Your task to perform on an android device: install app "Messages" Image 0: 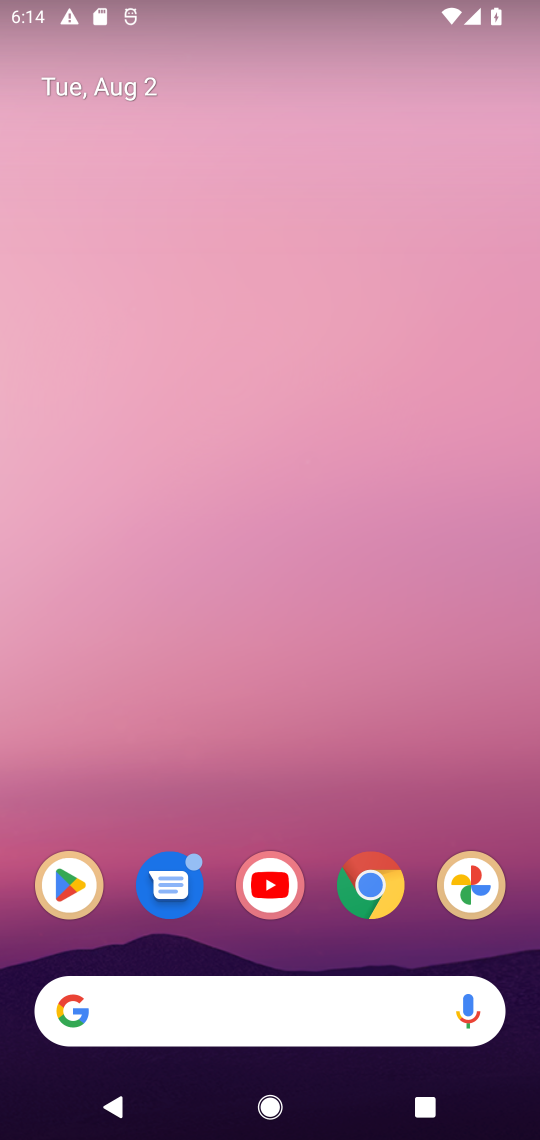
Step 0: press home button
Your task to perform on an android device: install app "Messages" Image 1: 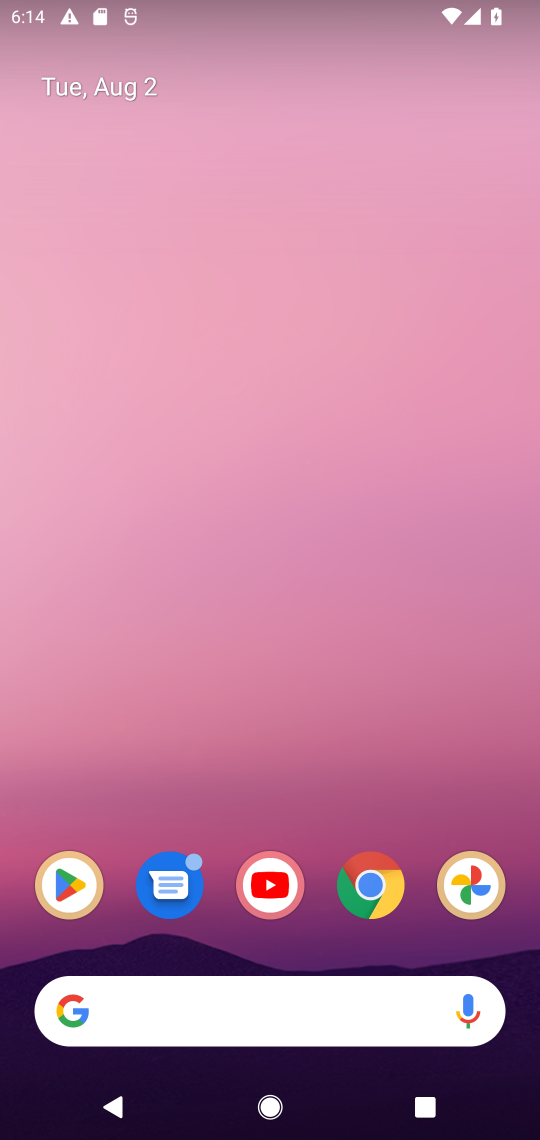
Step 1: drag from (436, 791) to (440, 178)
Your task to perform on an android device: install app "Messages" Image 2: 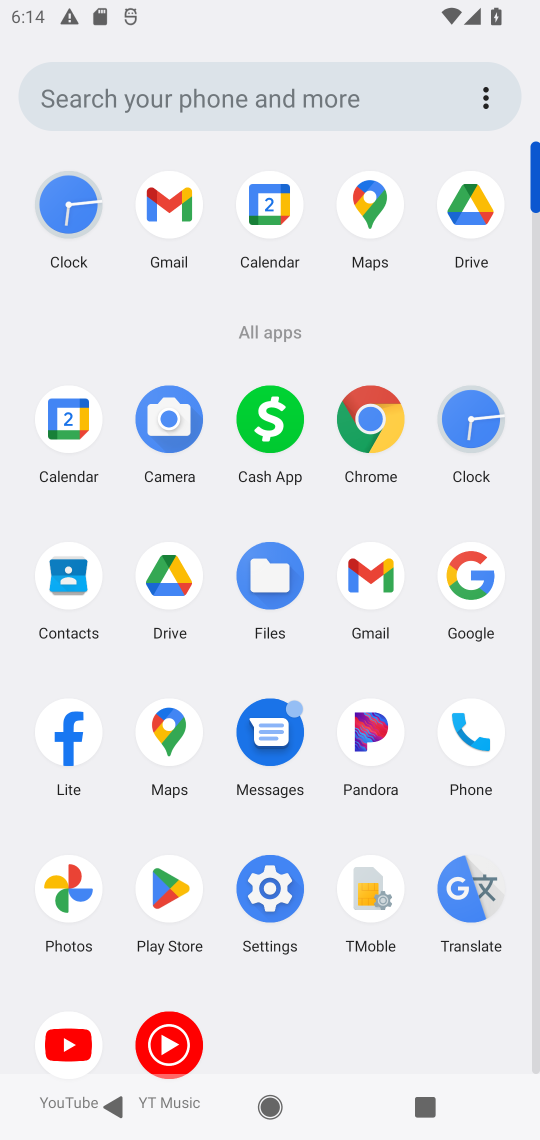
Step 2: click (170, 893)
Your task to perform on an android device: install app "Messages" Image 3: 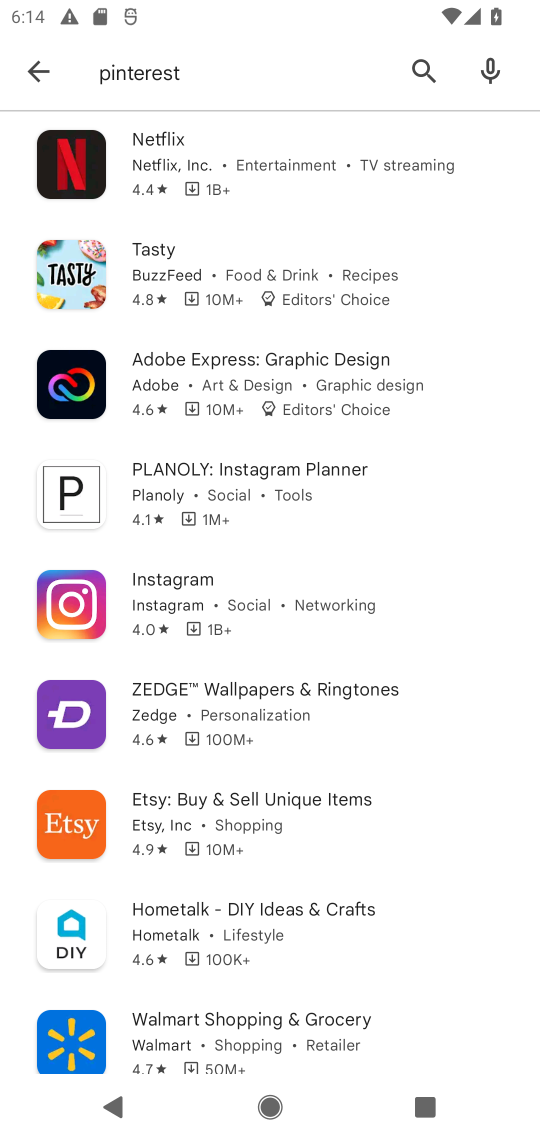
Step 3: click (423, 65)
Your task to perform on an android device: install app "Messages" Image 4: 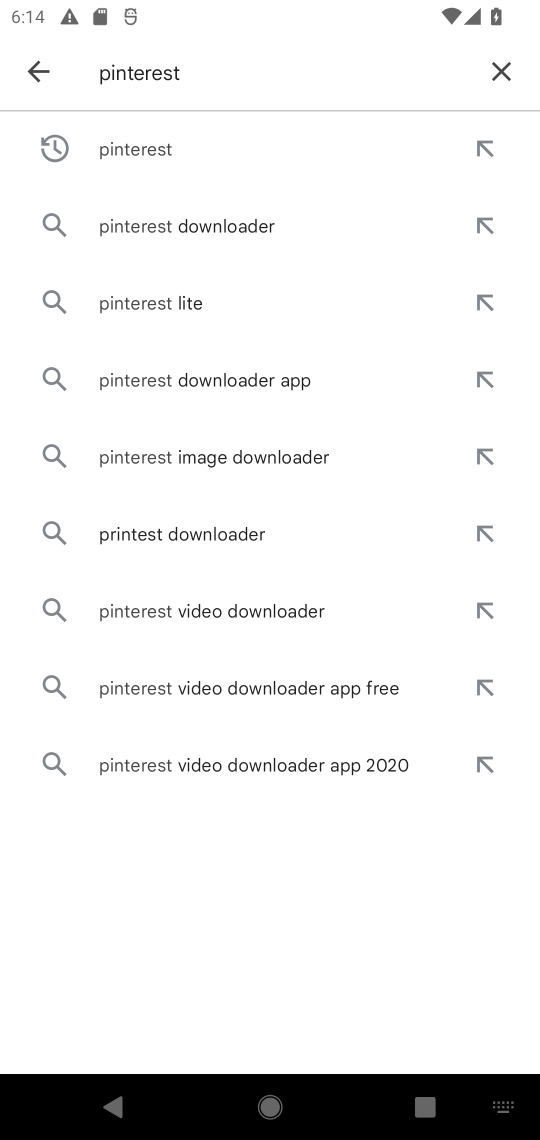
Step 4: click (490, 65)
Your task to perform on an android device: install app "Messages" Image 5: 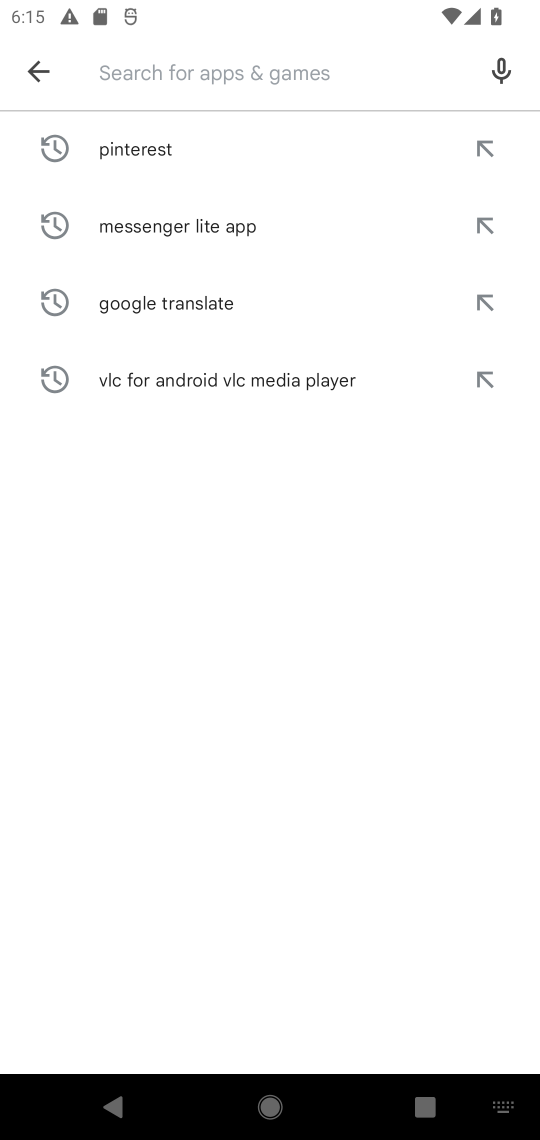
Step 5: type "messages"
Your task to perform on an android device: install app "Messages" Image 6: 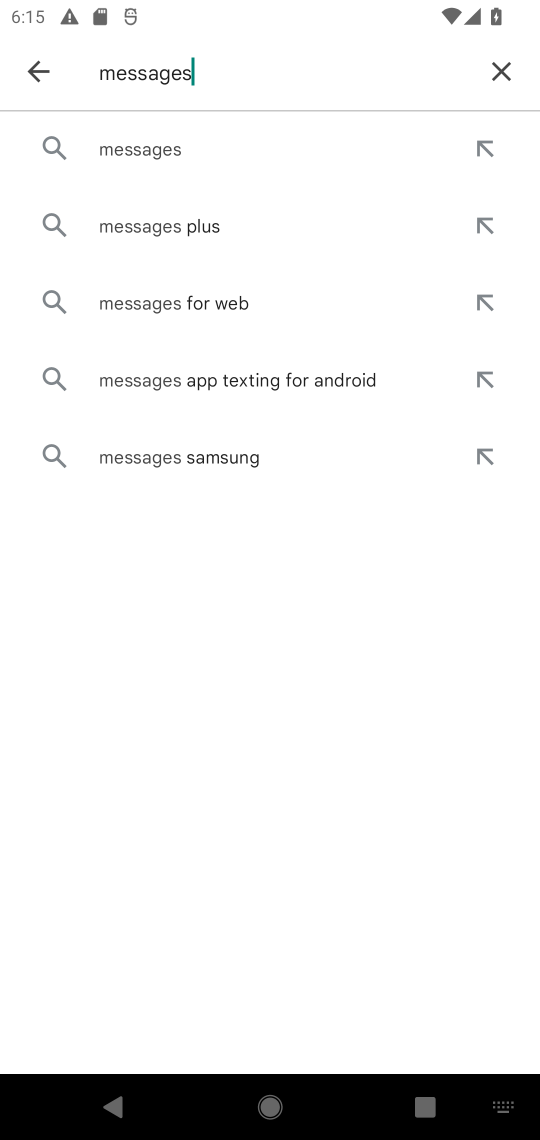
Step 6: click (177, 146)
Your task to perform on an android device: install app "Messages" Image 7: 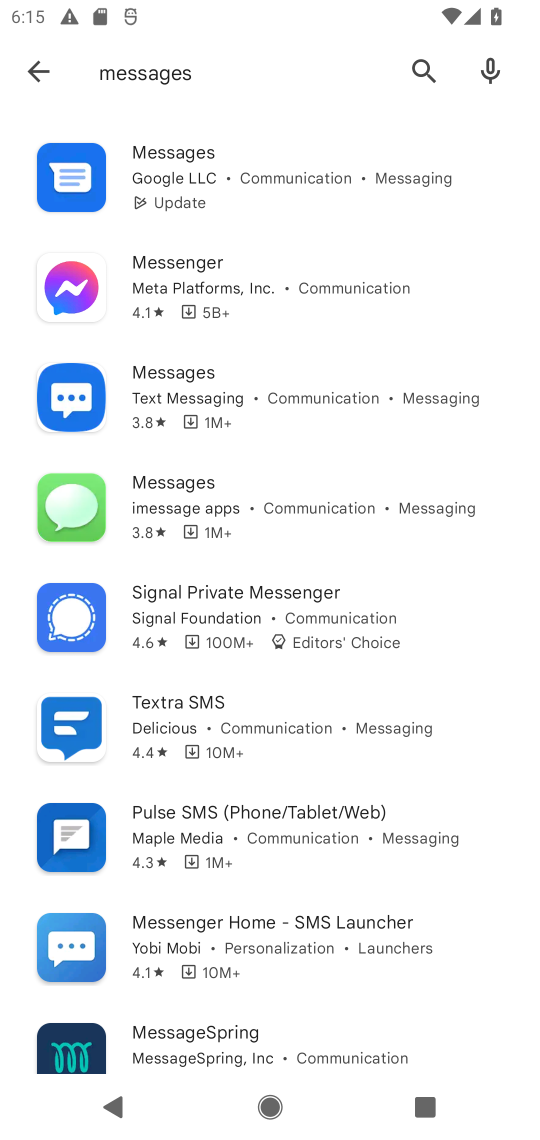
Step 7: click (192, 173)
Your task to perform on an android device: install app "Messages" Image 8: 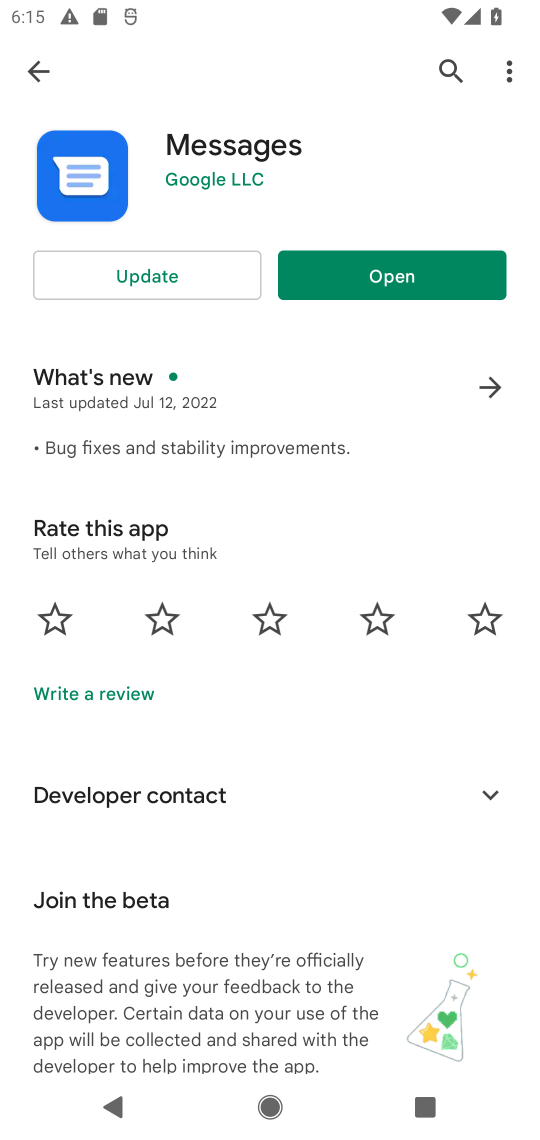
Step 8: task complete